Your task to perform on an android device: Open the clock app Image 0: 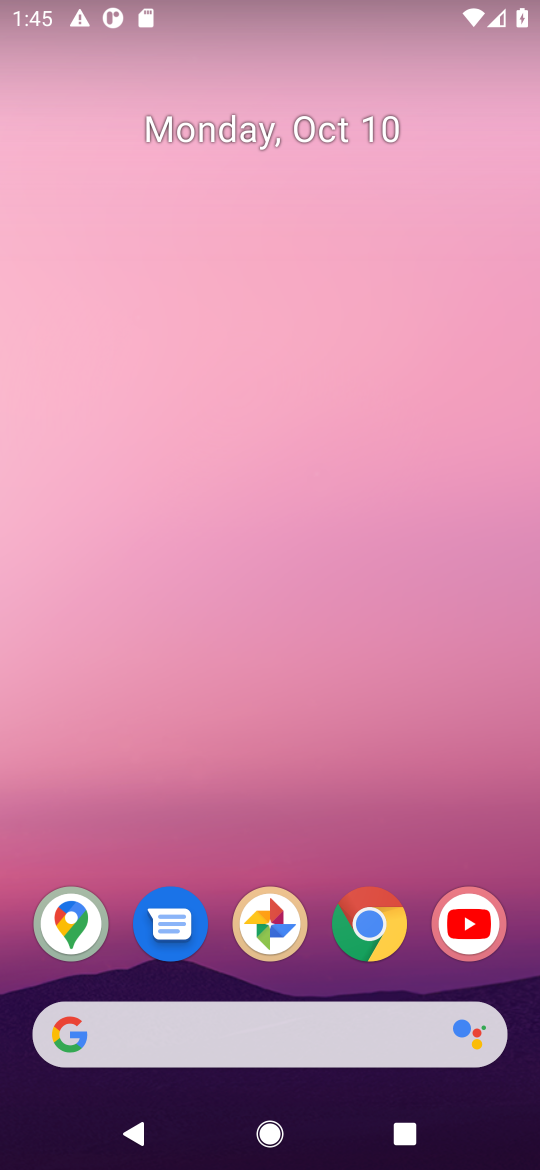
Step 0: drag from (405, 817) to (412, 37)
Your task to perform on an android device: Open the clock app Image 1: 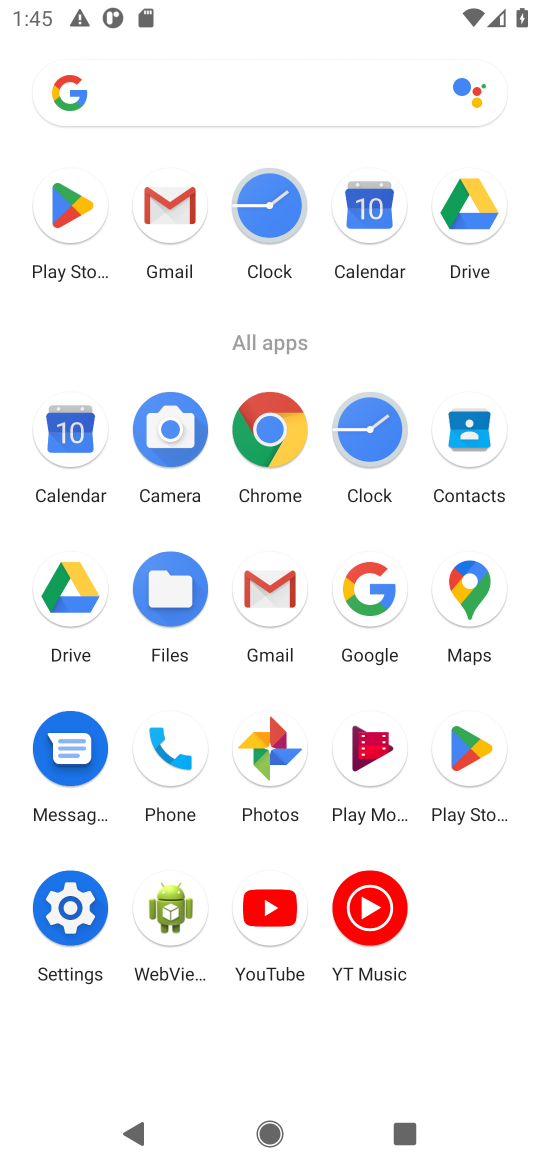
Step 1: click (363, 421)
Your task to perform on an android device: Open the clock app Image 2: 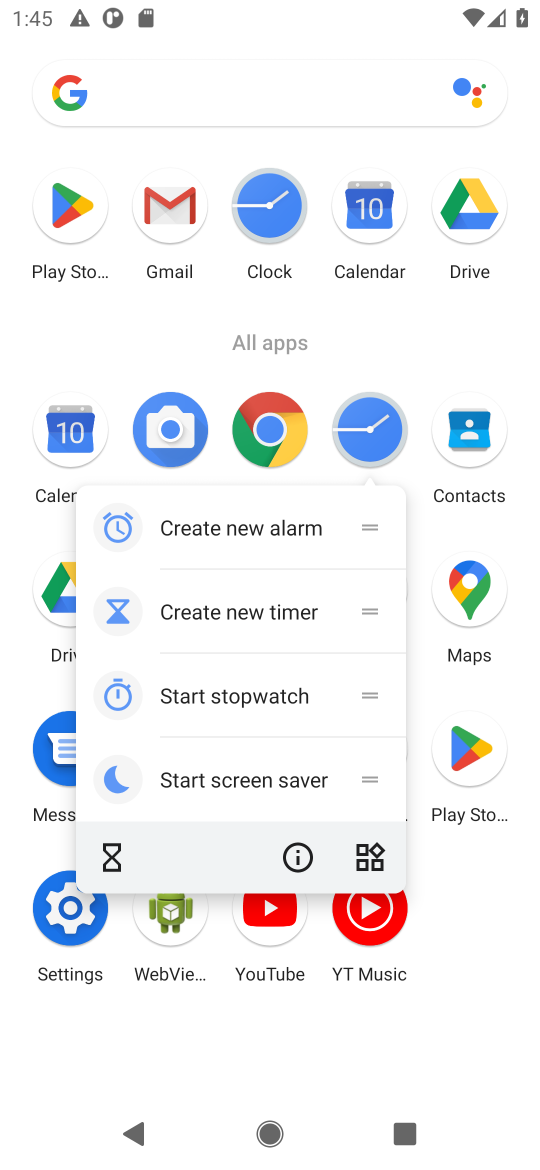
Step 2: click (278, 218)
Your task to perform on an android device: Open the clock app Image 3: 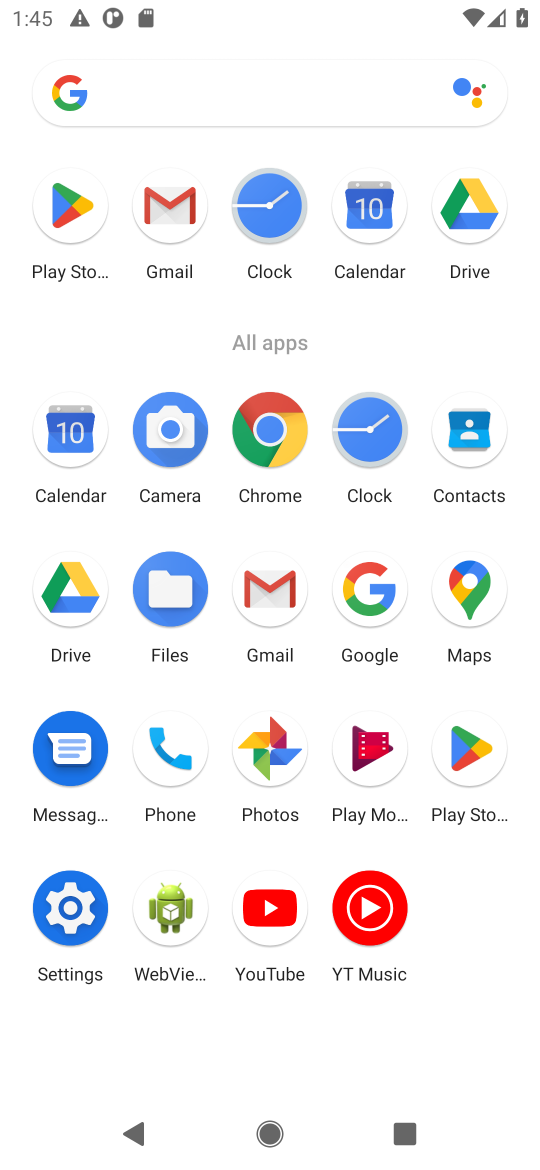
Step 3: click (278, 218)
Your task to perform on an android device: Open the clock app Image 4: 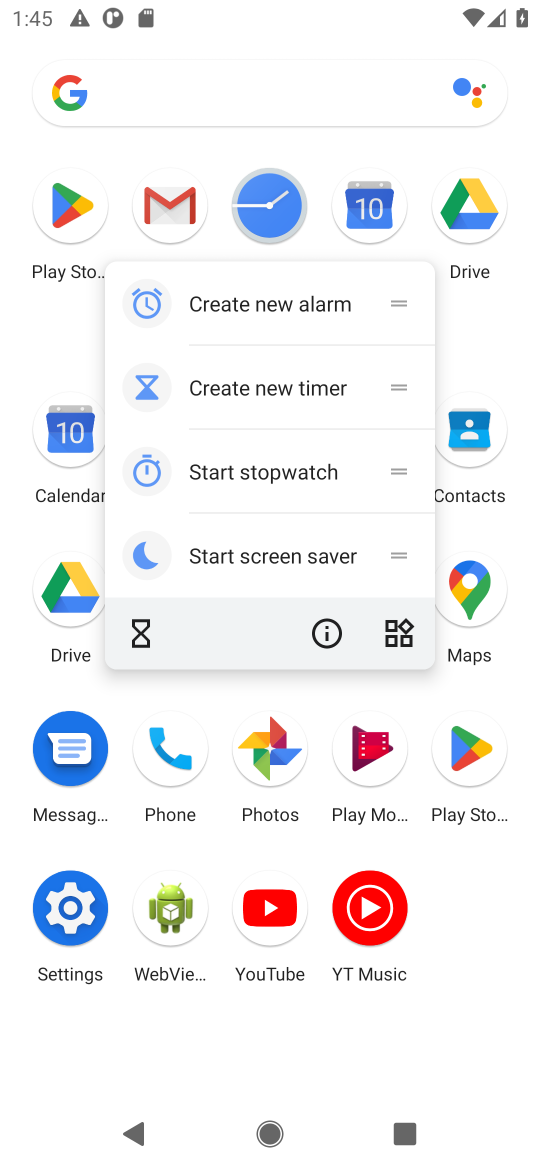
Step 4: click (267, 195)
Your task to perform on an android device: Open the clock app Image 5: 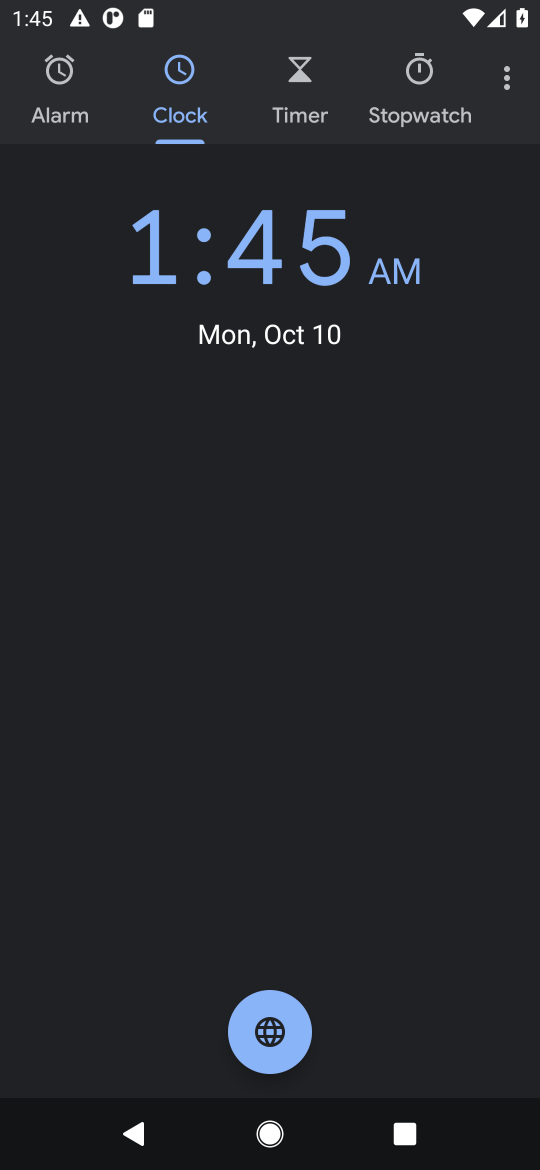
Step 5: task complete